Your task to perform on an android device: Go to ESPN.com Image 0: 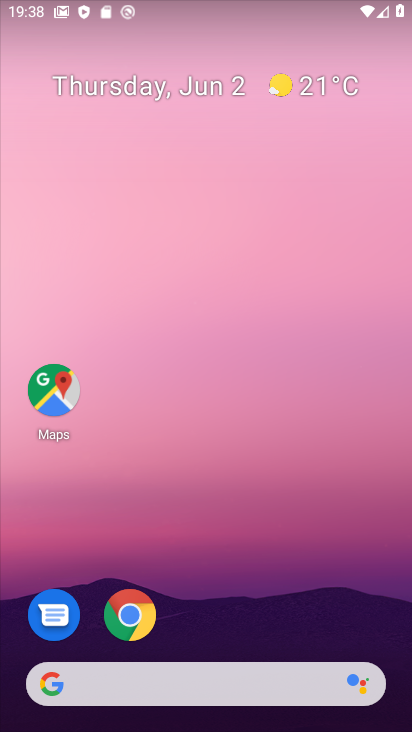
Step 0: click (269, 671)
Your task to perform on an android device: Go to ESPN.com Image 1: 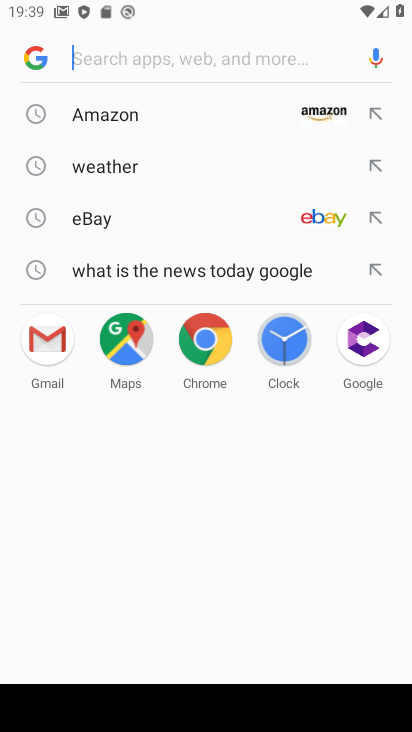
Step 1: type "espn"
Your task to perform on an android device: Go to ESPN.com Image 2: 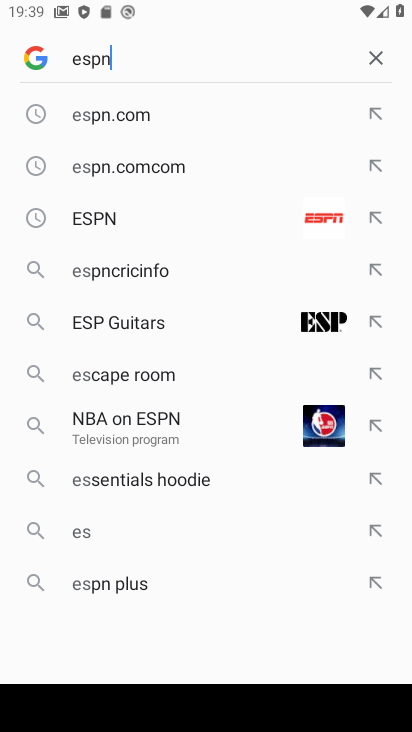
Step 2: click (170, 117)
Your task to perform on an android device: Go to ESPN.com Image 3: 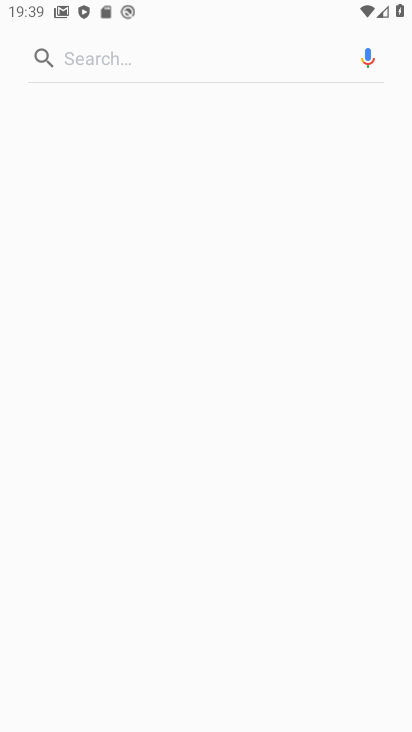
Step 3: task complete